Your task to perform on an android device: Set the phone to "Do not disturb". Image 0: 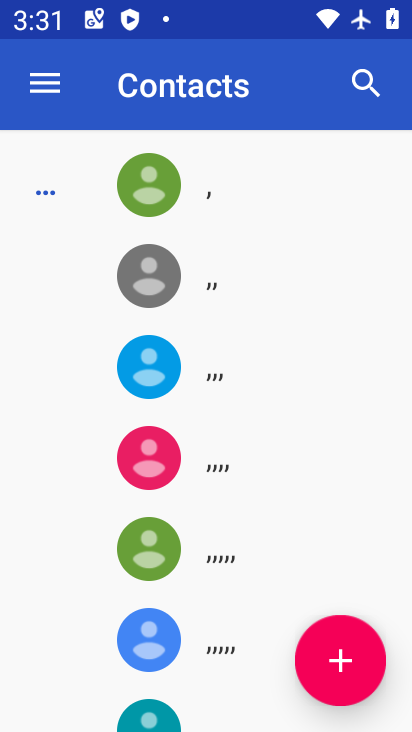
Step 0: press back button
Your task to perform on an android device: Set the phone to "Do not disturb". Image 1: 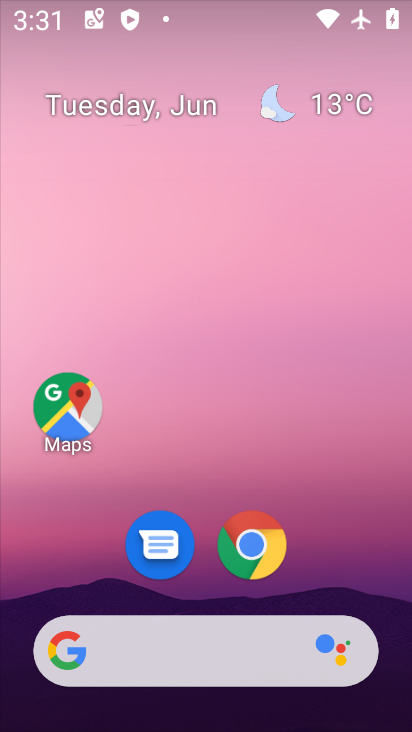
Step 1: drag from (271, 482) to (260, 15)
Your task to perform on an android device: Set the phone to "Do not disturb". Image 2: 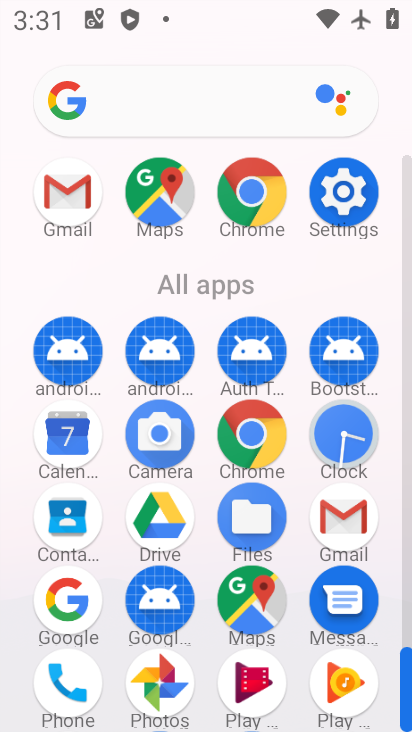
Step 2: click (344, 199)
Your task to perform on an android device: Set the phone to "Do not disturb". Image 3: 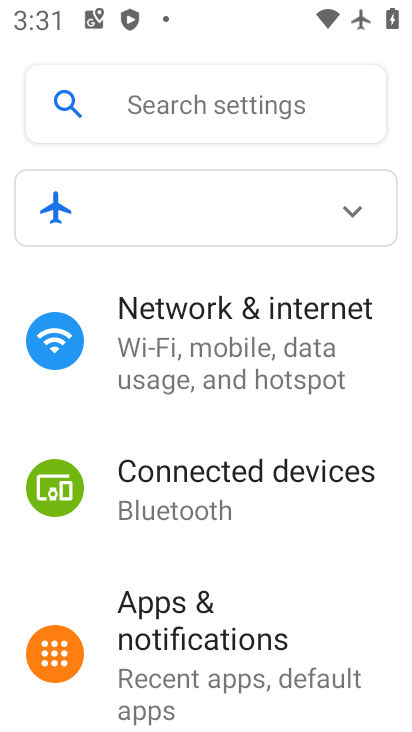
Step 3: drag from (207, 459) to (170, 99)
Your task to perform on an android device: Set the phone to "Do not disturb". Image 4: 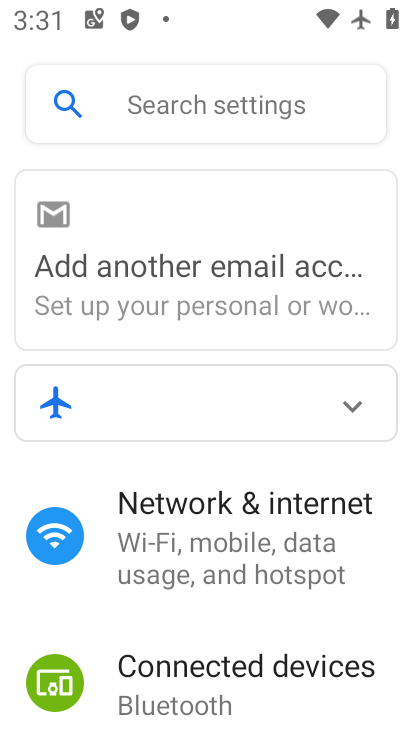
Step 4: drag from (206, 464) to (178, 223)
Your task to perform on an android device: Set the phone to "Do not disturb". Image 5: 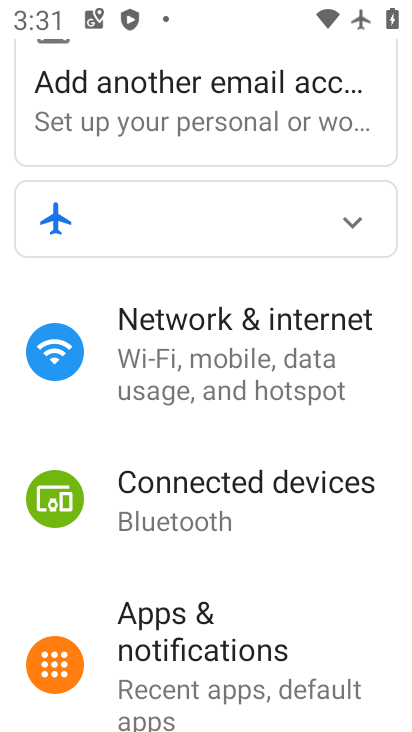
Step 5: drag from (204, 520) to (167, 216)
Your task to perform on an android device: Set the phone to "Do not disturb". Image 6: 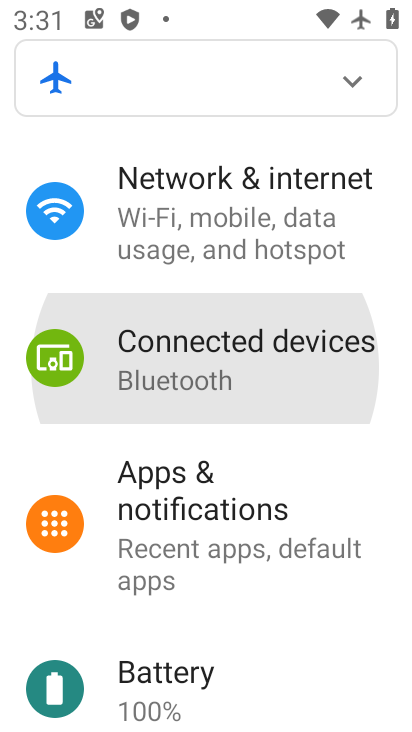
Step 6: drag from (182, 540) to (181, 71)
Your task to perform on an android device: Set the phone to "Do not disturb". Image 7: 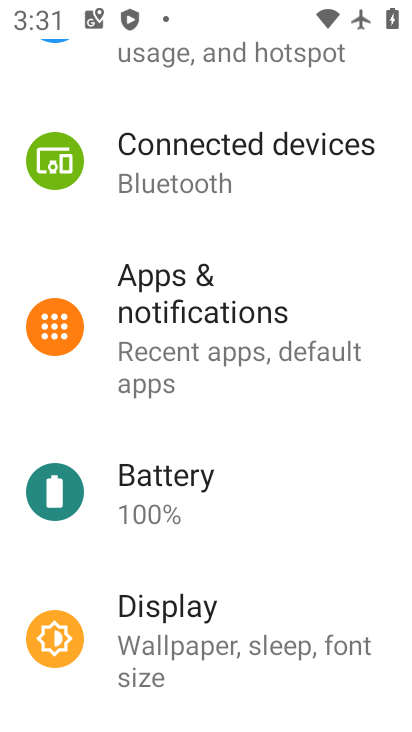
Step 7: drag from (145, 447) to (144, 181)
Your task to perform on an android device: Set the phone to "Do not disturb". Image 8: 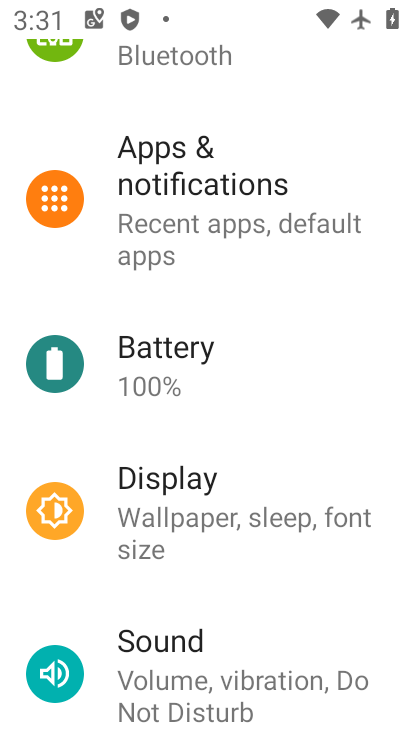
Step 8: drag from (145, 497) to (184, 236)
Your task to perform on an android device: Set the phone to "Do not disturb". Image 9: 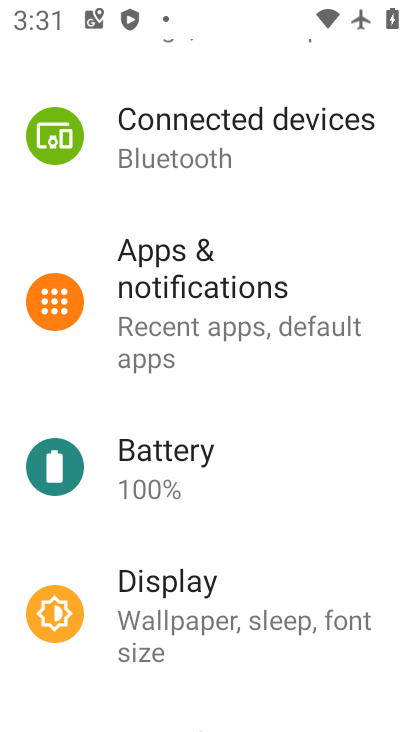
Step 9: drag from (154, 241) to (152, 643)
Your task to perform on an android device: Set the phone to "Do not disturb". Image 10: 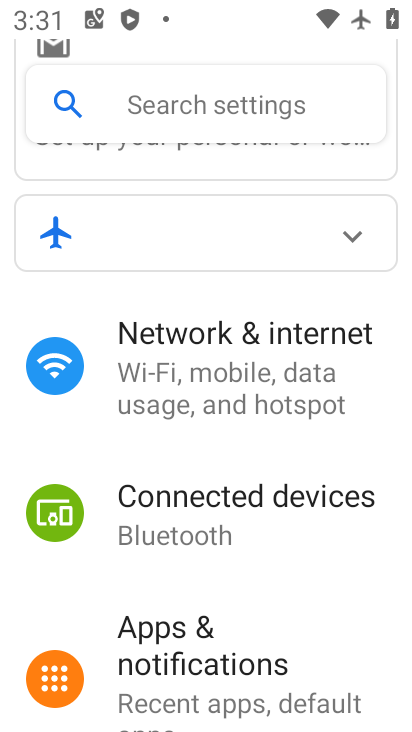
Step 10: drag from (199, 433) to (204, 469)
Your task to perform on an android device: Set the phone to "Do not disturb". Image 11: 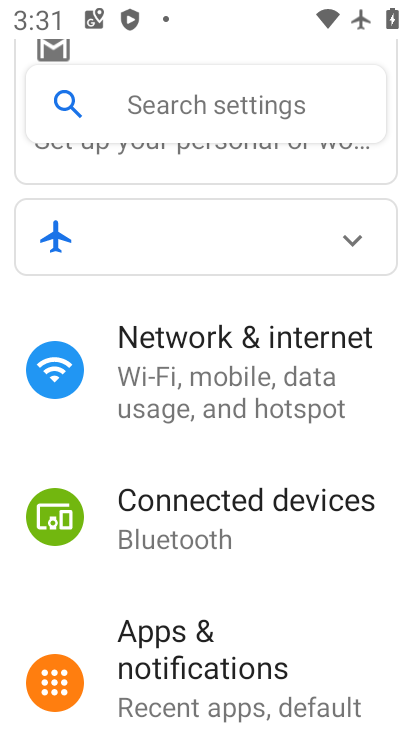
Step 11: drag from (238, 508) to (205, 257)
Your task to perform on an android device: Set the phone to "Do not disturb". Image 12: 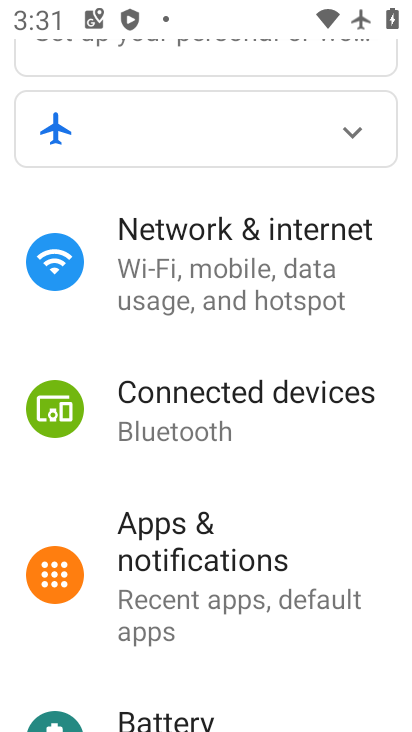
Step 12: drag from (272, 526) to (273, 252)
Your task to perform on an android device: Set the phone to "Do not disturb". Image 13: 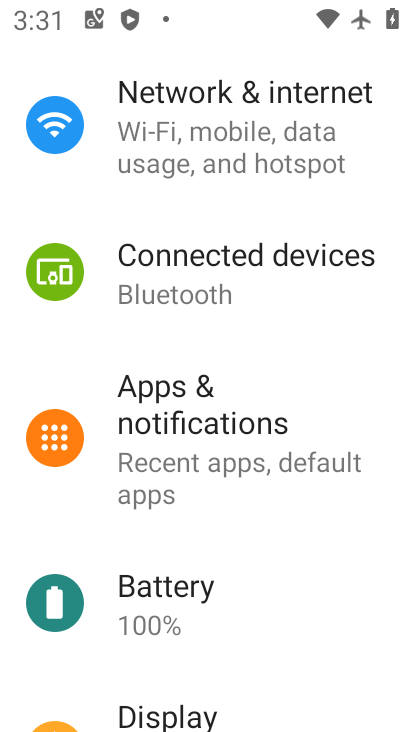
Step 13: drag from (285, 447) to (275, 229)
Your task to perform on an android device: Set the phone to "Do not disturb". Image 14: 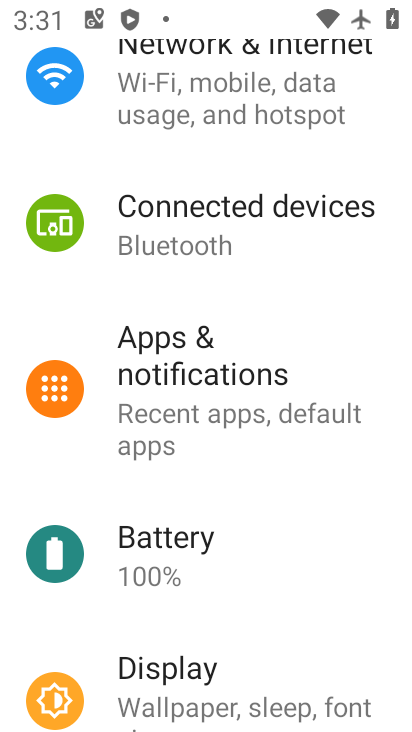
Step 14: drag from (275, 591) to (213, 145)
Your task to perform on an android device: Set the phone to "Do not disturb". Image 15: 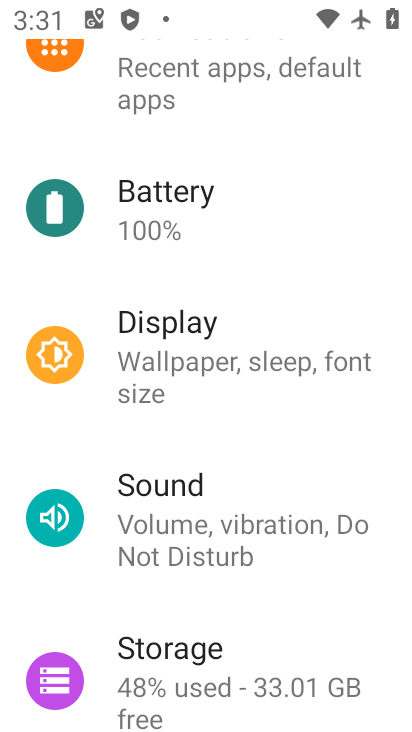
Step 15: drag from (213, 499) to (213, 296)
Your task to perform on an android device: Set the phone to "Do not disturb". Image 16: 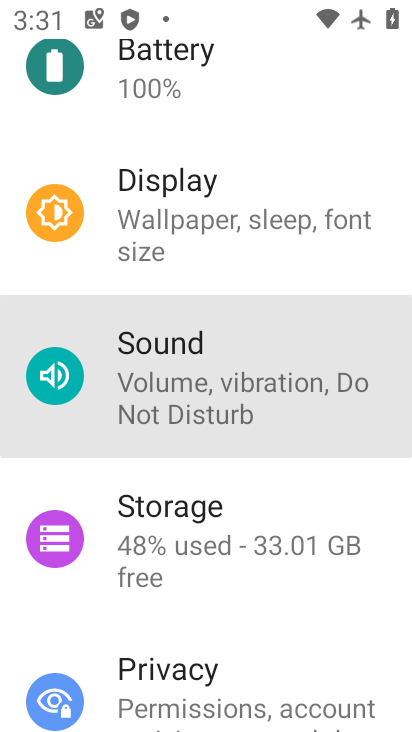
Step 16: drag from (294, 609) to (290, 279)
Your task to perform on an android device: Set the phone to "Do not disturb". Image 17: 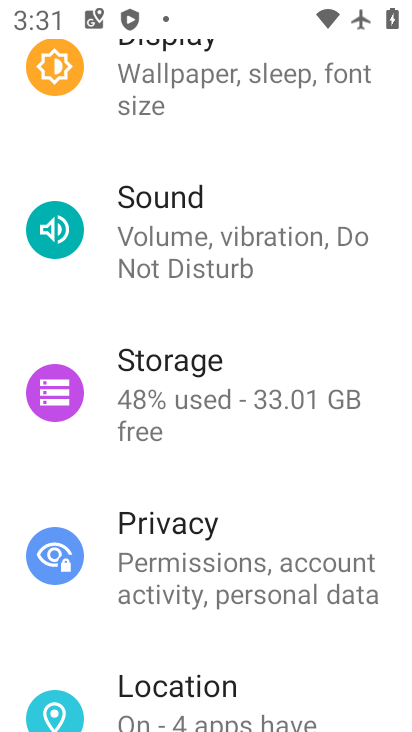
Step 17: click (155, 258)
Your task to perform on an android device: Set the phone to "Do not disturb". Image 18: 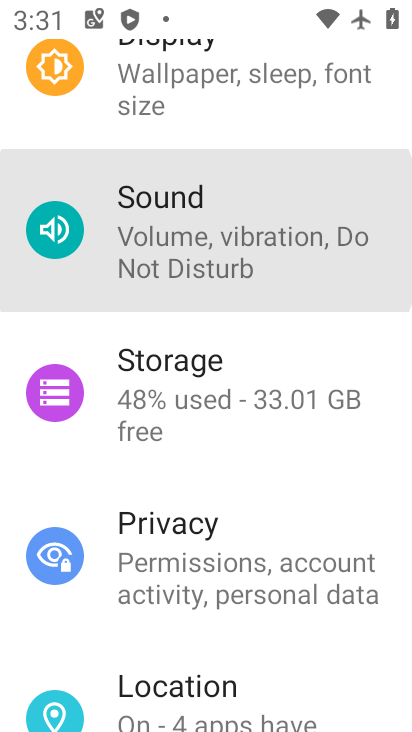
Step 18: click (153, 259)
Your task to perform on an android device: Set the phone to "Do not disturb". Image 19: 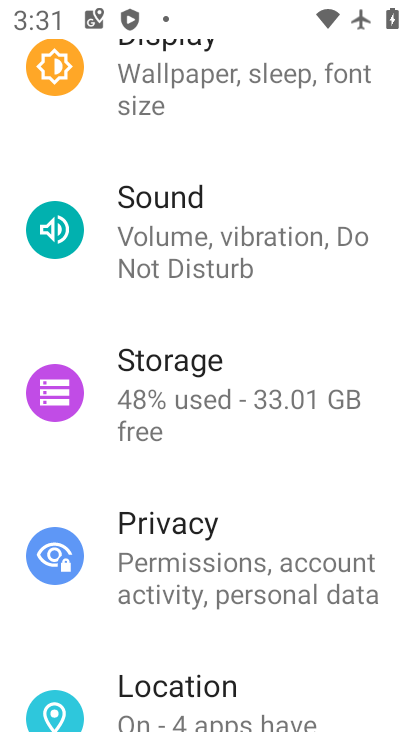
Step 19: click (152, 254)
Your task to perform on an android device: Set the phone to "Do not disturb". Image 20: 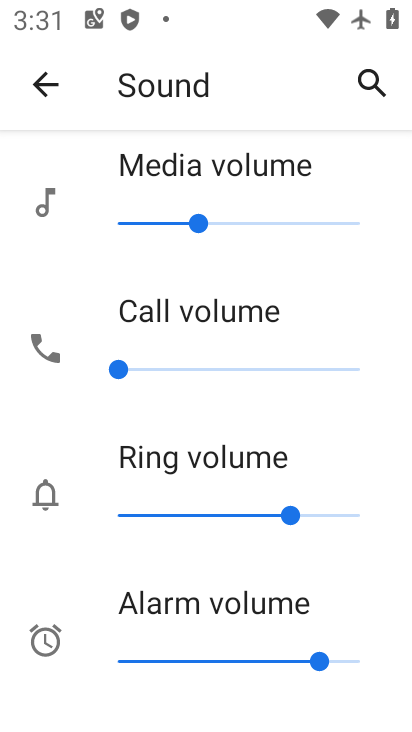
Step 20: drag from (206, 516) to (184, 194)
Your task to perform on an android device: Set the phone to "Do not disturb". Image 21: 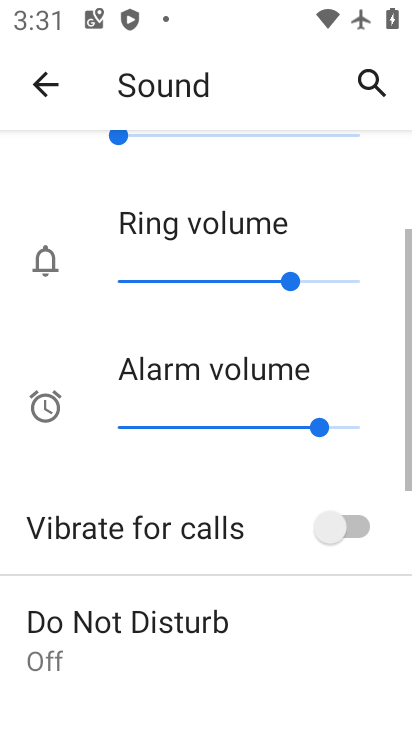
Step 21: drag from (149, 488) to (143, 256)
Your task to perform on an android device: Set the phone to "Do not disturb". Image 22: 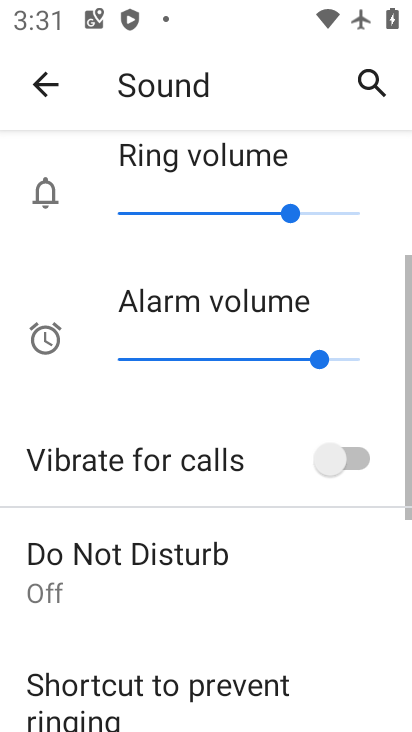
Step 22: drag from (165, 457) to (165, 197)
Your task to perform on an android device: Set the phone to "Do not disturb". Image 23: 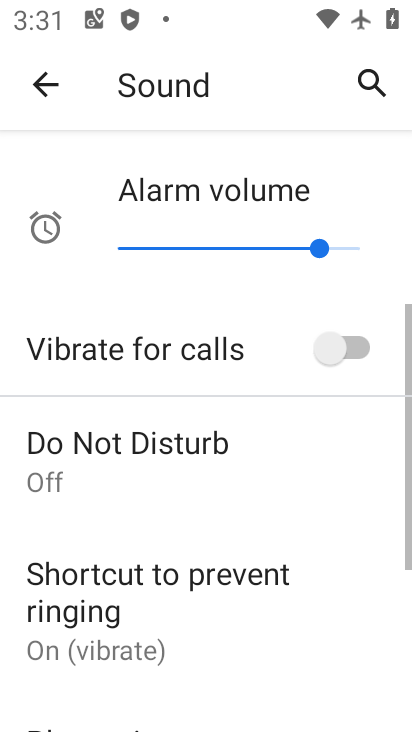
Step 23: drag from (105, 461) to (100, 324)
Your task to perform on an android device: Set the phone to "Do not disturb". Image 24: 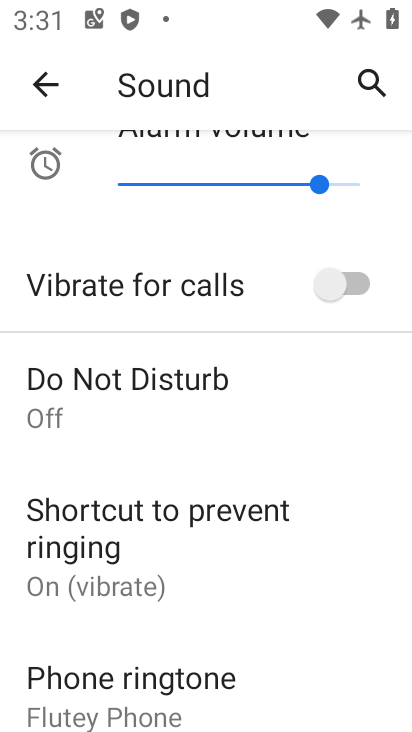
Step 24: click (79, 381)
Your task to perform on an android device: Set the phone to "Do not disturb". Image 25: 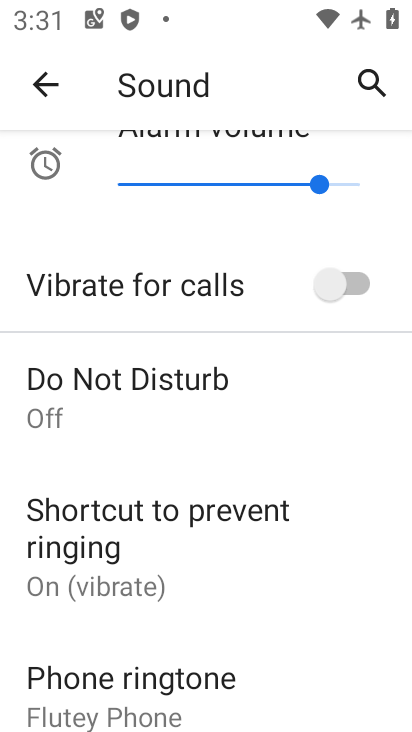
Step 25: click (79, 381)
Your task to perform on an android device: Set the phone to "Do not disturb". Image 26: 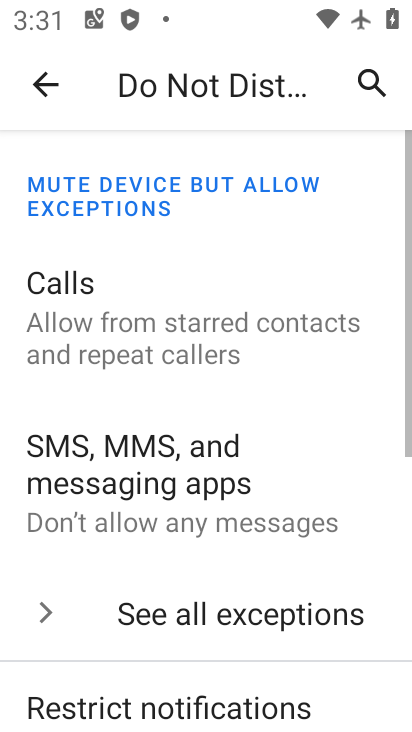
Step 26: click (85, 378)
Your task to perform on an android device: Set the phone to "Do not disturb". Image 27: 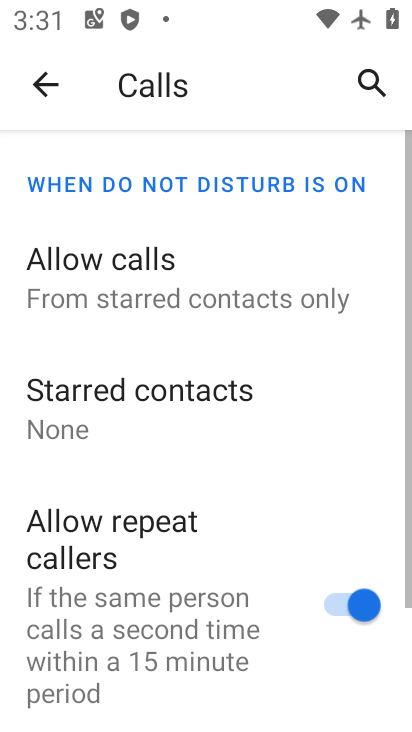
Step 27: drag from (158, 344) to (160, 179)
Your task to perform on an android device: Set the phone to "Do not disturb". Image 28: 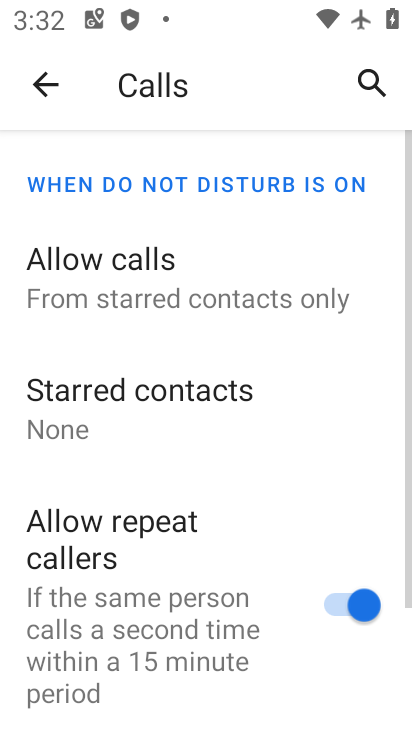
Step 28: click (192, 213)
Your task to perform on an android device: Set the phone to "Do not disturb". Image 29: 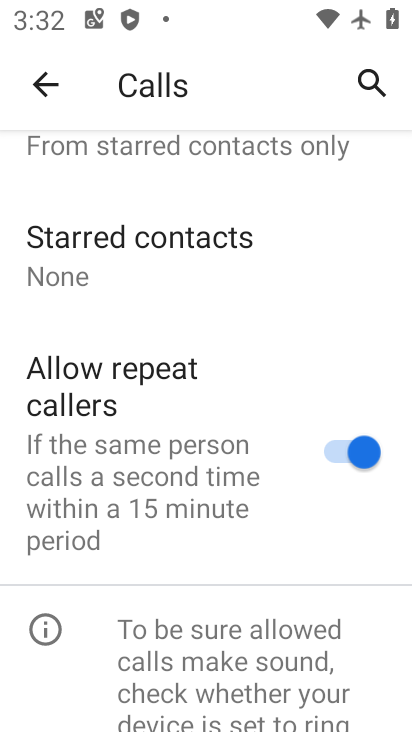
Step 29: task complete